Your task to perform on an android device: change the clock display to analog Image 0: 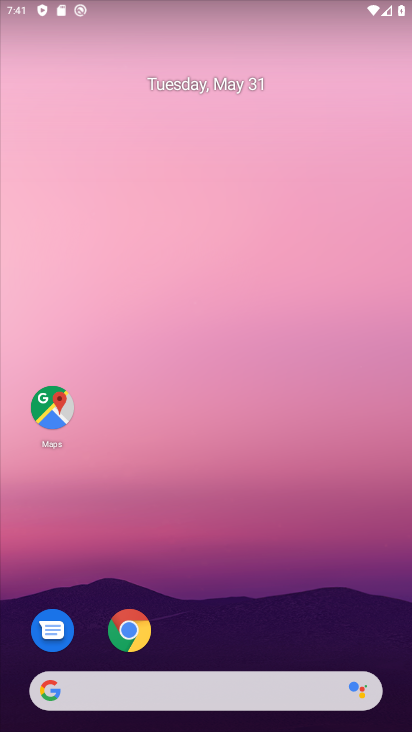
Step 0: drag from (310, 648) to (266, 140)
Your task to perform on an android device: change the clock display to analog Image 1: 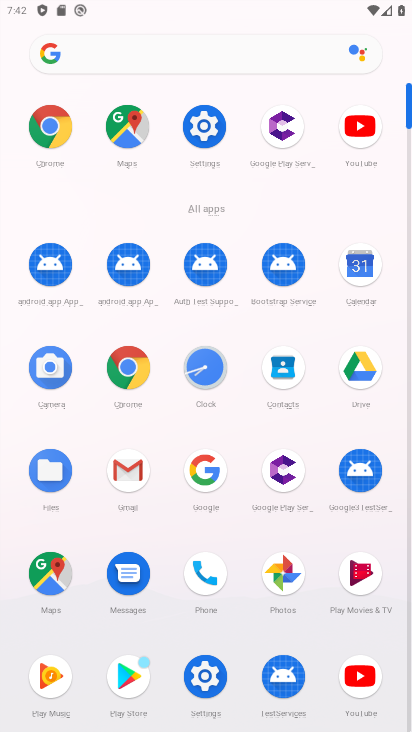
Step 1: click (193, 364)
Your task to perform on an android device: change the clock display to analog Image 2: 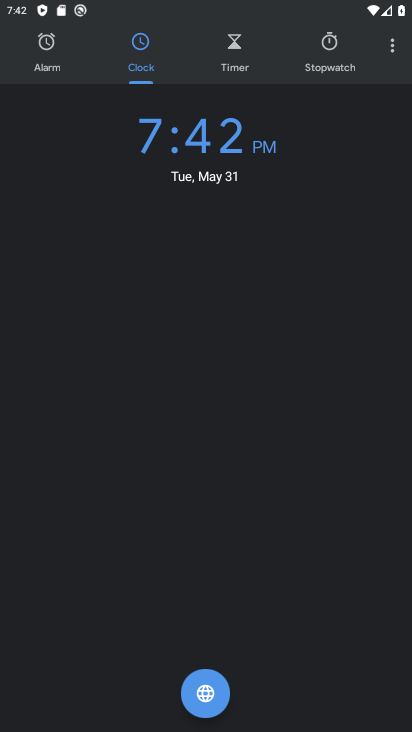
Step 2: click (396, 42)
Your task to perform on an android device: change the clock display to analog Image 3: 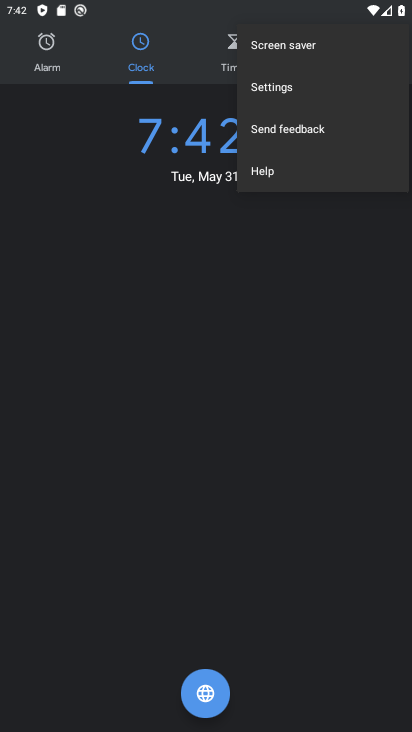
Step 3: click (259, 95)
Your task to perform on an android device: change the clock display to analog Image 4: 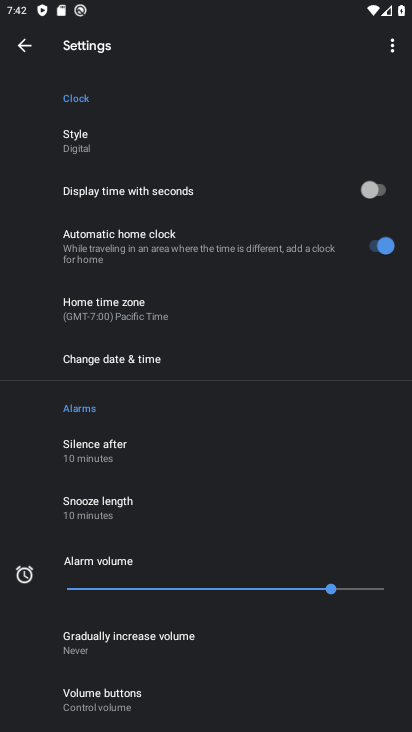
Step 4: click (138, 142)
Your task to perform on an android device: change the clock display to analog Image 5: 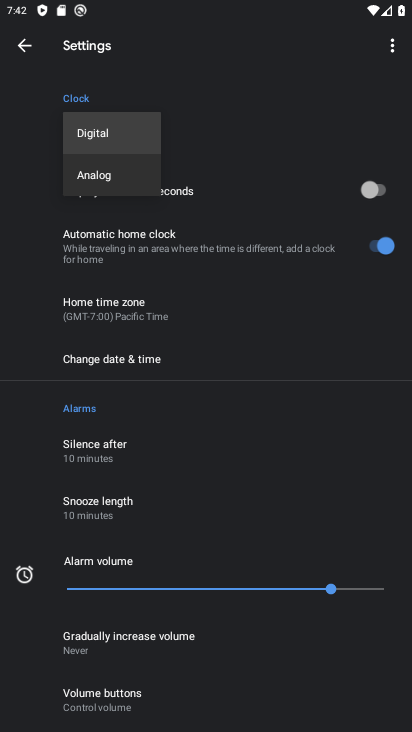
Step 5: click (100, 176)
Your task to perform on an android device: change the clock display to analog Image 6: 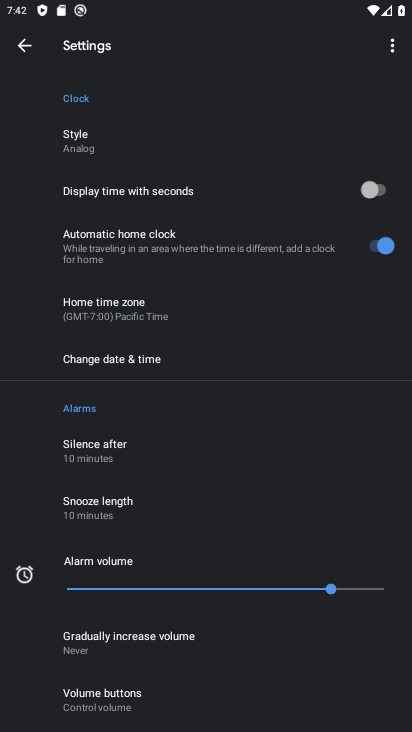
Step 6: task complete